Your task to perform on an android device: What's the weather going to be this weekend? Image 0: 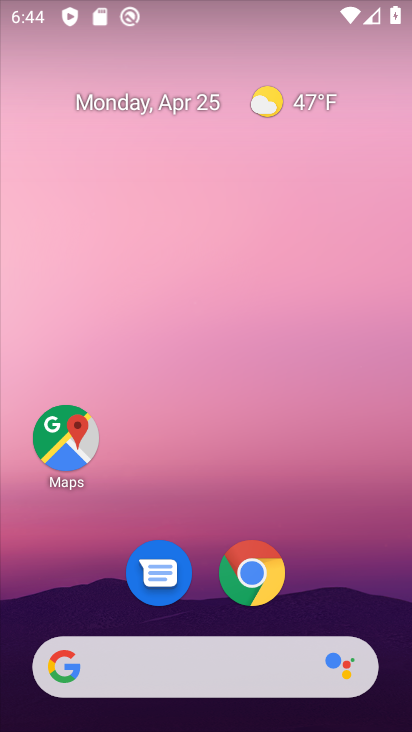
Step 0: drag from (327, 568) to (267, 38)
Your task to perform on an android device: What's the weather going to be this weekend? Image 1: 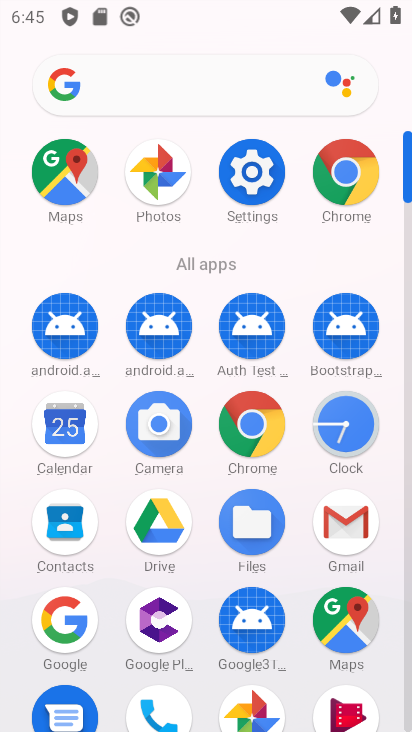
Step 1: click (67, 619)
Your task to perform on an android device: What's the weather going to be this weekend? Image 2: 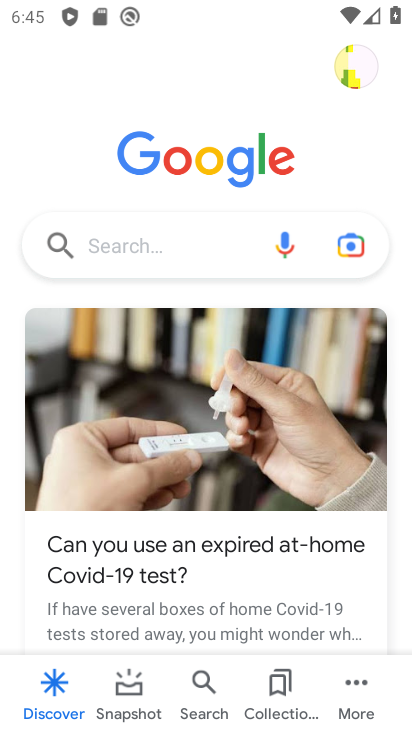
Step 2: click (126, 248)
Your task to perform on an android device: What's the weather going to be this weekend? Image 3: 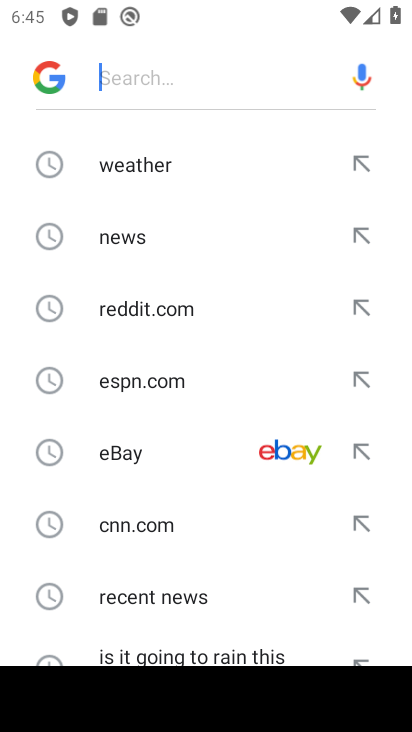
Step 3: click (147, 170)
Your task to perform on an android device: What's the weather going to be this weekend? Image 4: 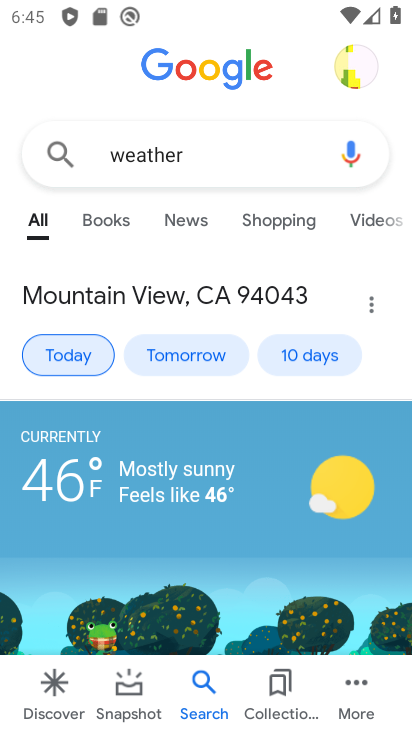
Step 4: click (318, 350)
Your task to perform on an android device: What's the weather going to be this weekend? Image 5: 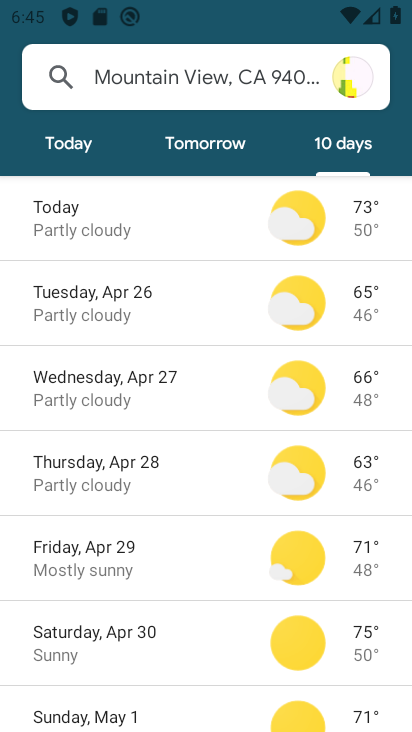
Step 5: task complete